Your task to perform on an android device: turn on wifi Image 0: 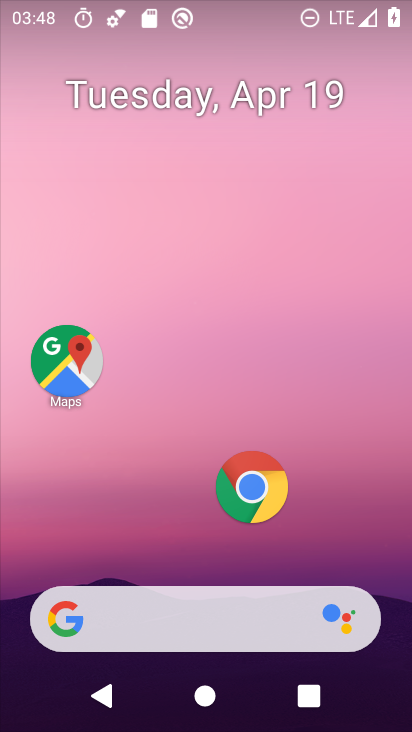
Step 0: drag from (99, 13) to (145, 332)
Your task to perform on an android device: turn on wifi Image 1: 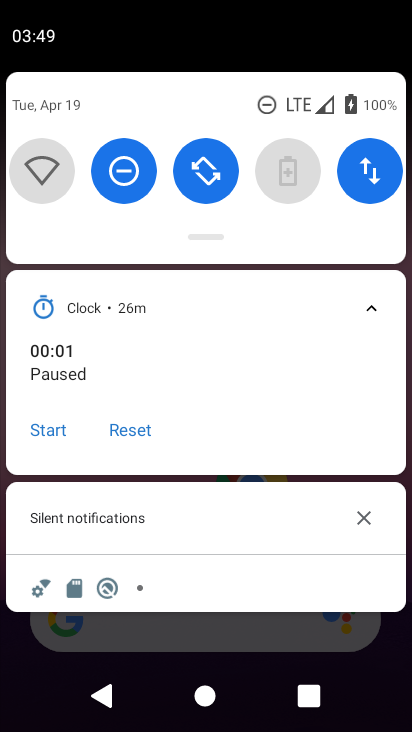
Step 1: click (46, 173)
Your task to perform on an android device: turn on wifi Image 2: 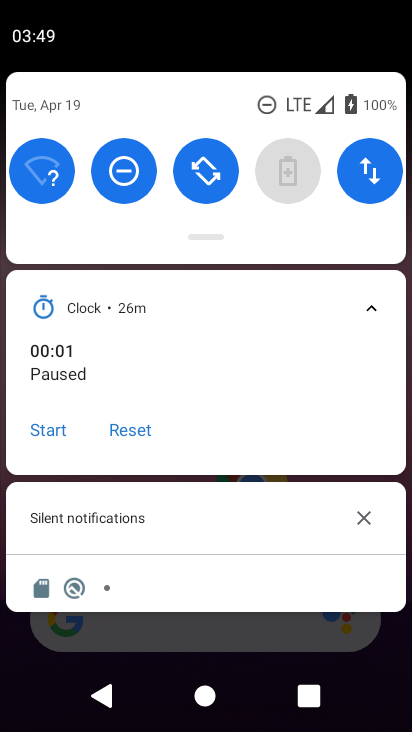
Step 2: task complete